Your task to perform on an android device: Open Android settings Image 0: 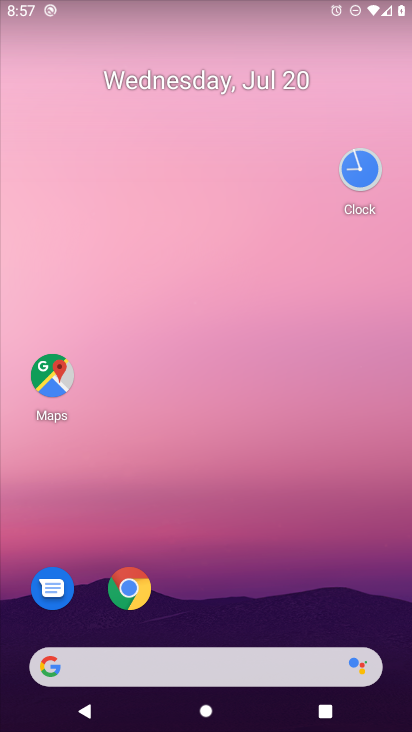
Step 0: drag from (110, 548) to (245, 181)
Your task to perform on an android device: Open Android settings Image 1: 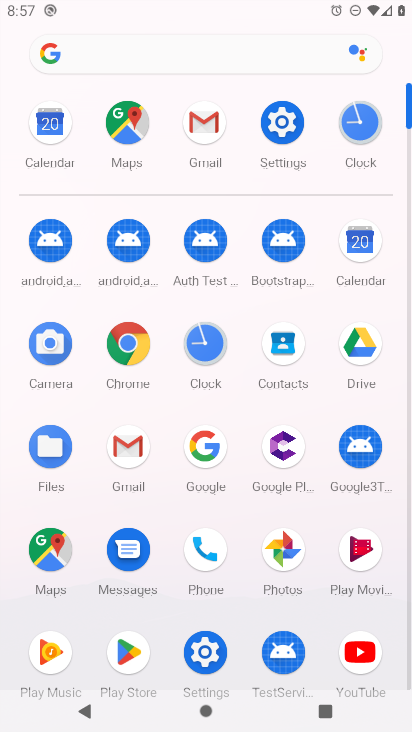
Step 1: click (199, 642)
Your task to perform on an android device: Open Android settings Image 2: 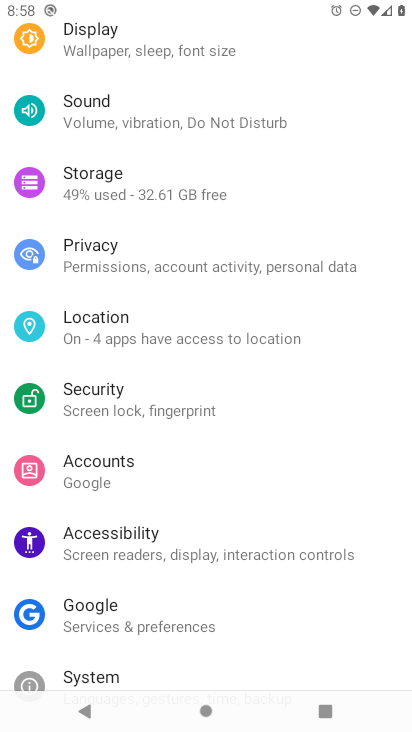
Step 2: drag from (280, 522) to (306, 379)
Your task to perform on an android device: Open Android settings Image 3: 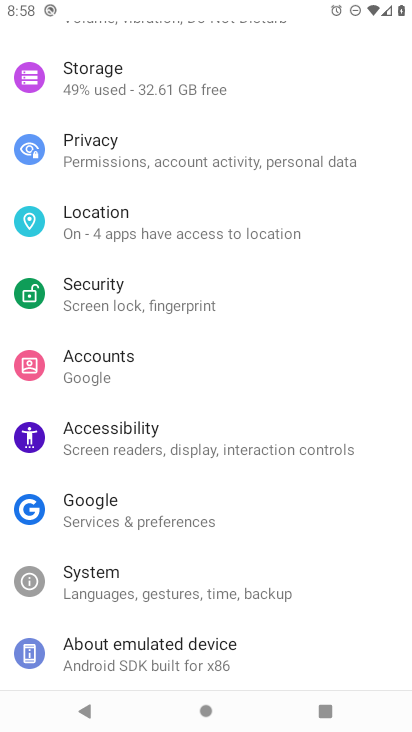
Step 3: click (177, 637)
Your task to perform on an android device: Open Android settings Image 4: 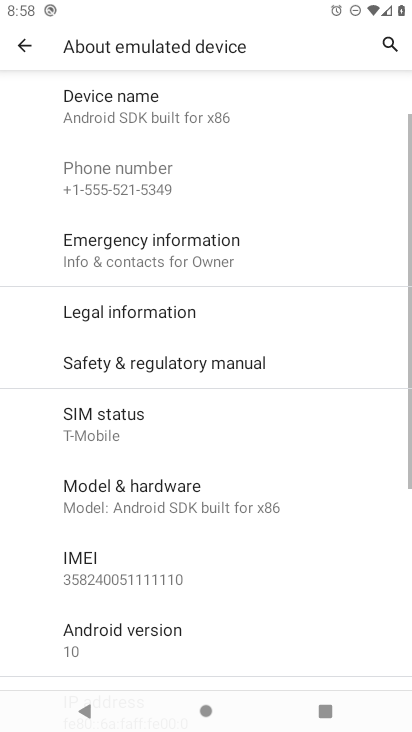
Step 4: click (163, 634)
Your task to perform on an android device: Open Android settings Image 5: 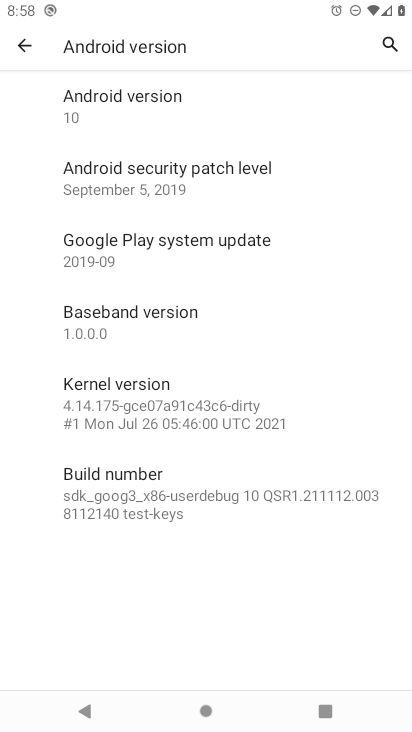
Step 5: task complete